Your task to perform on an android device: Open calendar and show me the third week of next month Image 0: 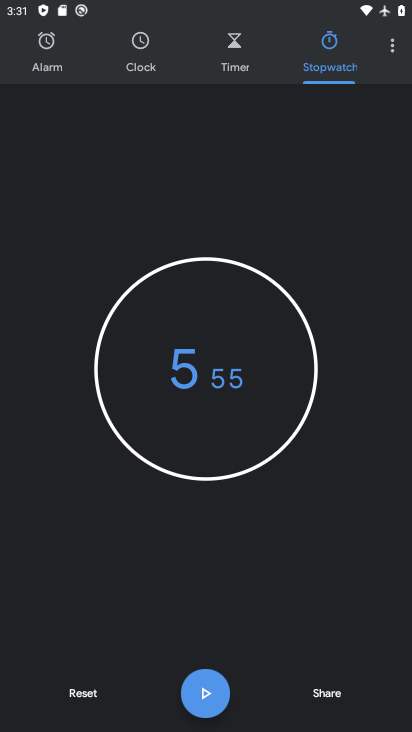
Step 0: press back button
Your task to perform on an android device: Open calendar and show me the third week of next month Image 1: 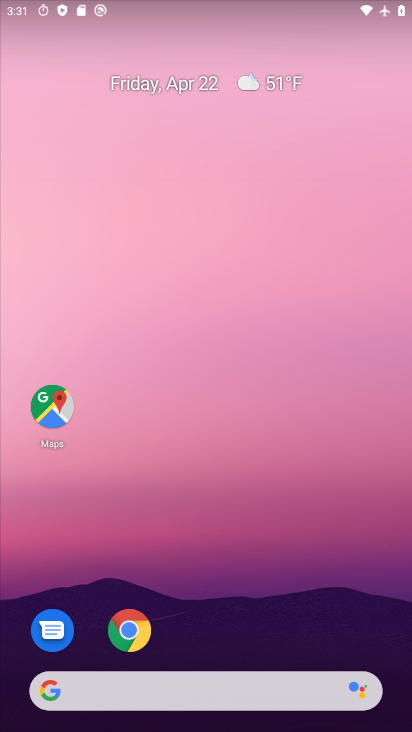
Step 1: drag from (250, 578) to (150, 70)
Your task to perform on an android device: Open calendar and show me the third week of next month Image 2: 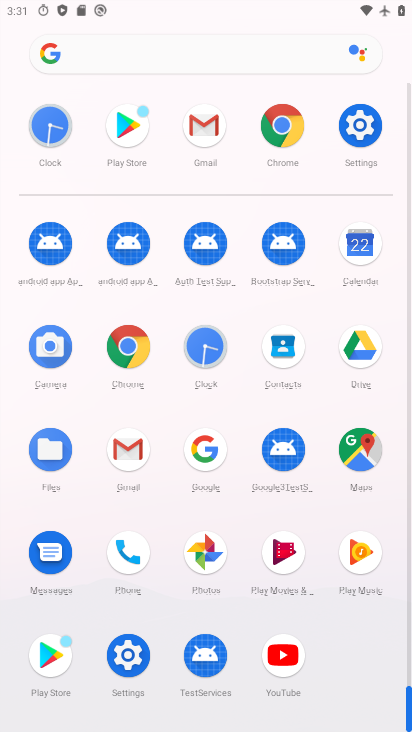
Step 2: drag from (16, 534) to (6, 330)
Your task to perform on an android device: Open calendar and show me the third week of next month Image 3: 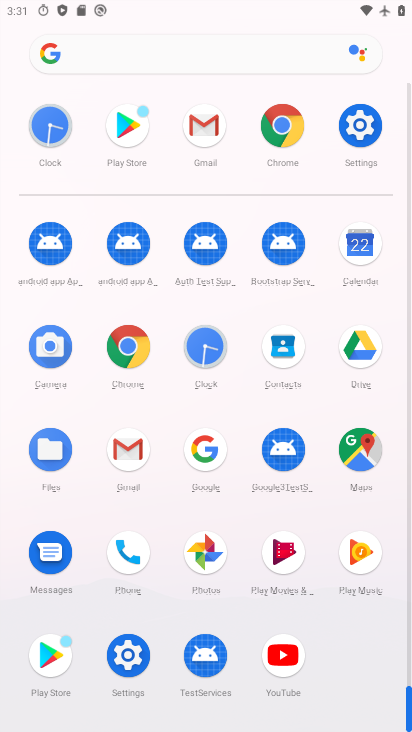
Step 3: click (357, 233)
Your task to perform on an android device: Open calendar and show me the third week of next month Image 4: 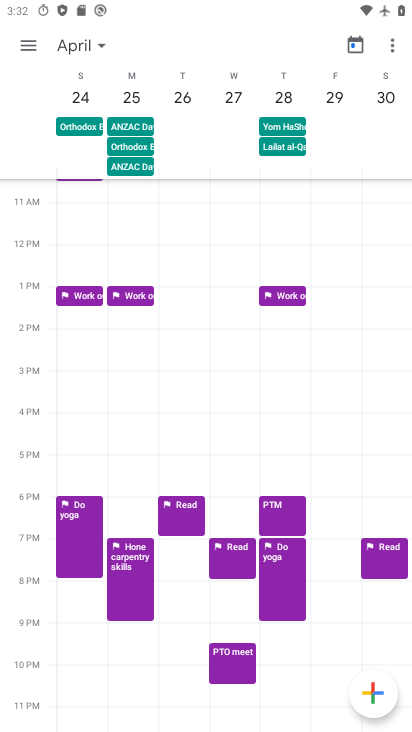
Step 4: click (98, 44)
Your task to perform on an android device: Open calendar and show me the third week of next month Image 5: 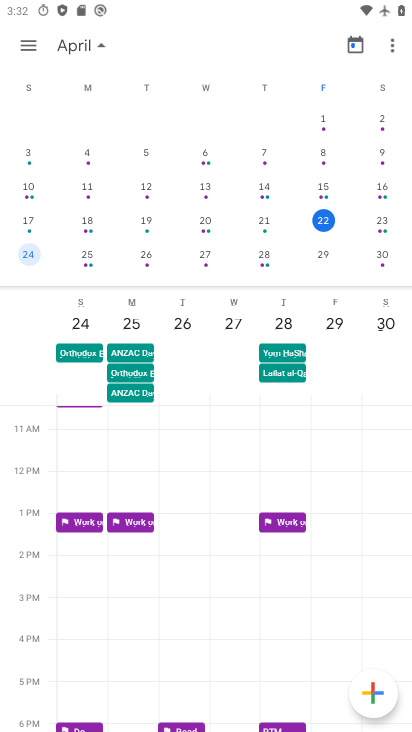
Step 5: drag from (378, 163) to (2, 88)
Your task to perform on an android device: Open calendar and show me the third week of next month Image 6: 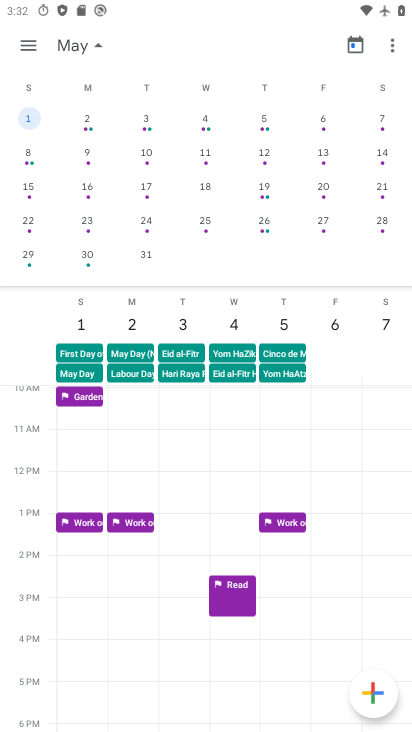
Step 6: click (28, 183)
Your task to perform on an android device: Open calendar and show me the third week of next month Image 7: 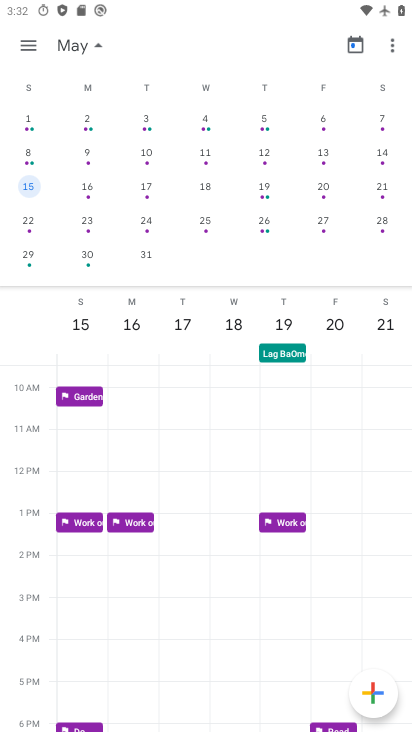
Step 7: click (35, 37)
Your task to perform on an android device: Open calendar and show me the third week of next month Image 8: 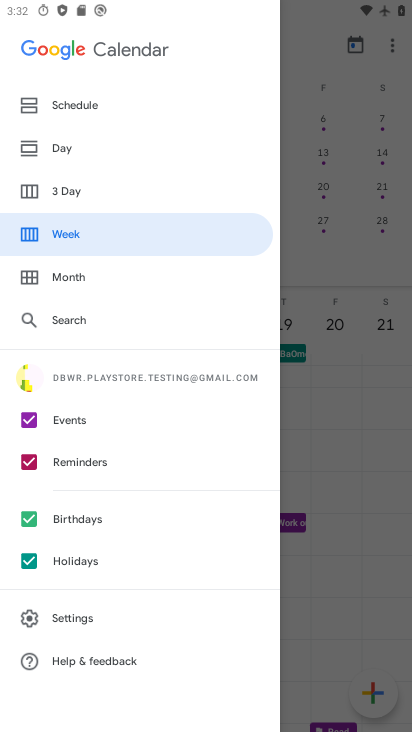
Step 8: click (120, 227)
Your task to perform on an android device: Open calendar and show me the third week of next month Image 9: 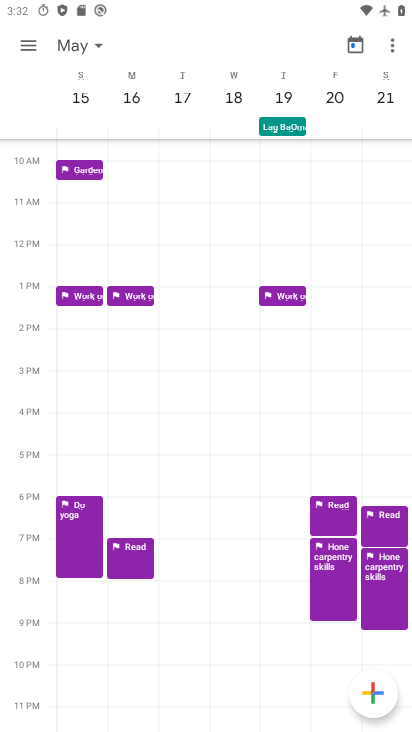
Step 9: task complete